Your task to perform on an android device: Open Chrome and go to the settings page Image 0: 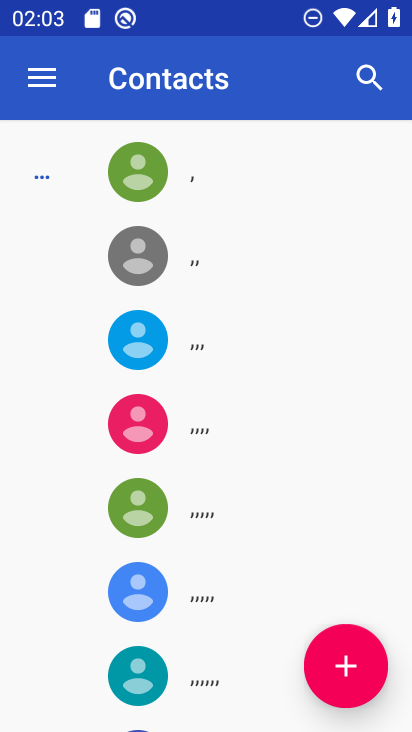
Step 0: press home button
Your task to perform on an android device: Open Chrome and go to the settings page Image 1: 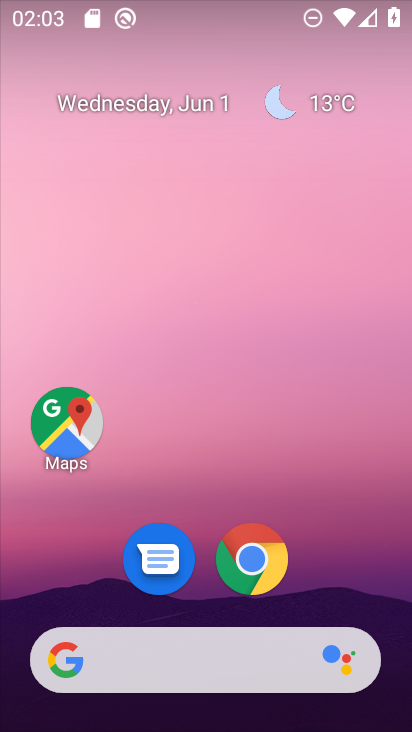
Step 1: click (250, 564)
Your task to perform on an android device: Open Chrome and go to the settings page Image 2: 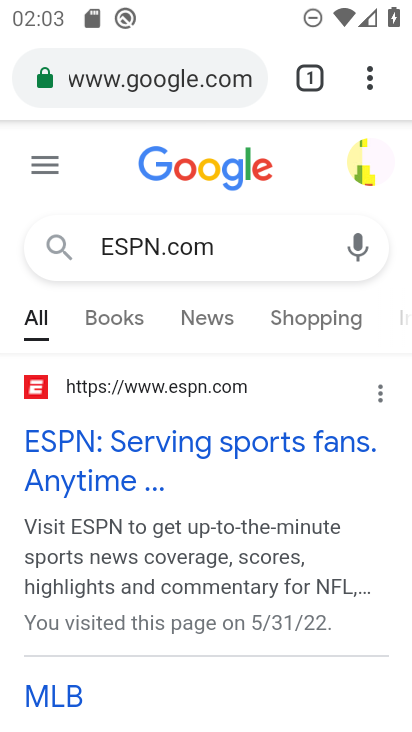
Step 2: click (368, 74)
Your task to perform on an android device: Open Chrome and go to the settings page Image 3: 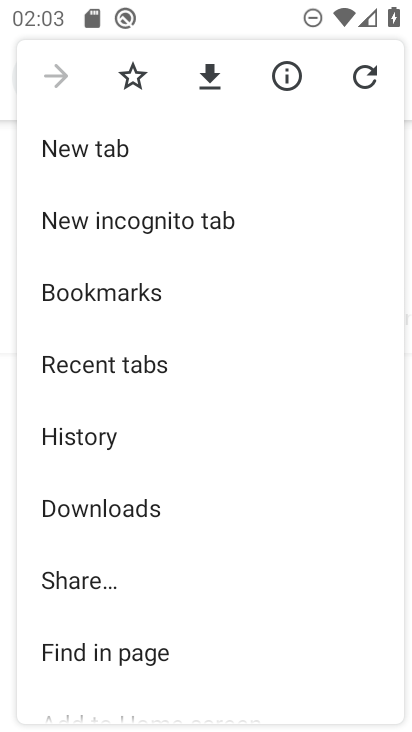
Step 3: drag from (288, 636) to (281, 229)
Your task to perform on an android device: Open Chrome and go to the settings page Image 4: 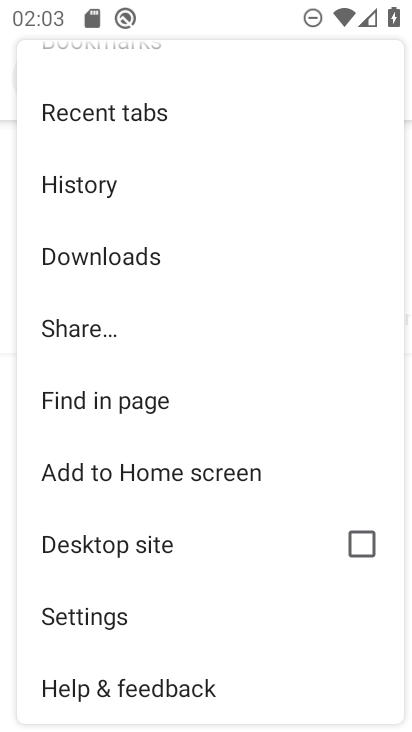
Step 4: drag from (255, 555) to (263, 278)
Your task to perform on an android device: Open Chrome and go to the settings page Image 5: 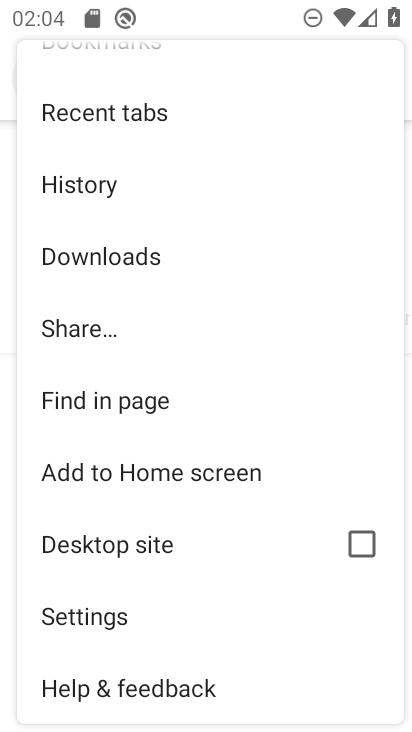
Step 5: click (109, 623)
Your task to perform on an android device: Open Chrome and go to the settings page Image 6: 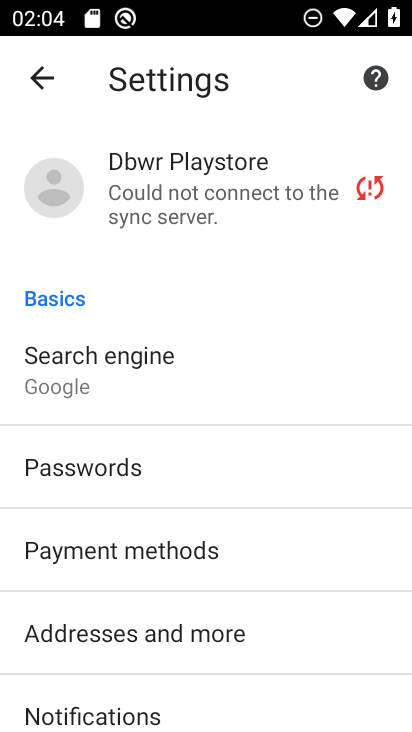
Step 6: task complete